Your task to perform on an android device: Open my contact list Image 0: 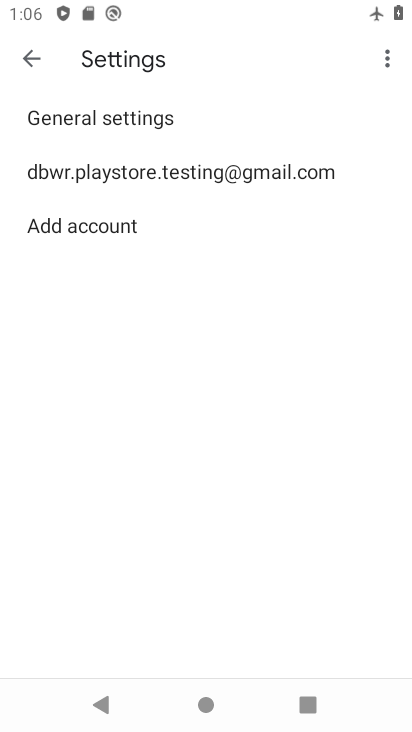
Step 0: press home button
Your task to perform on an android device: Open my contact list Image 1: 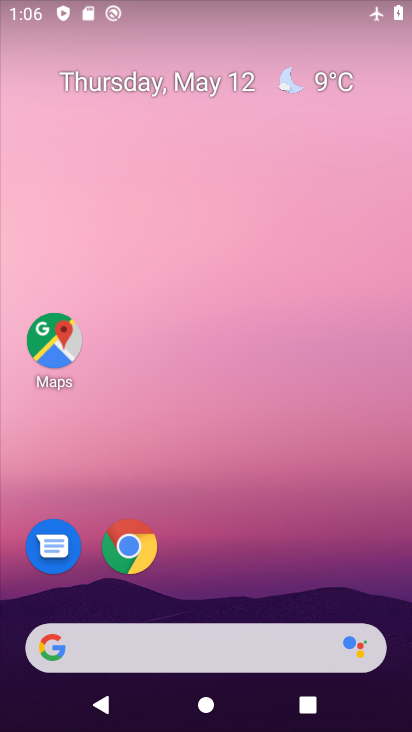
Step 1: drag from (194, 676) to (333, 338)
Your task to perform on an android device: Open my contact list Image 2: 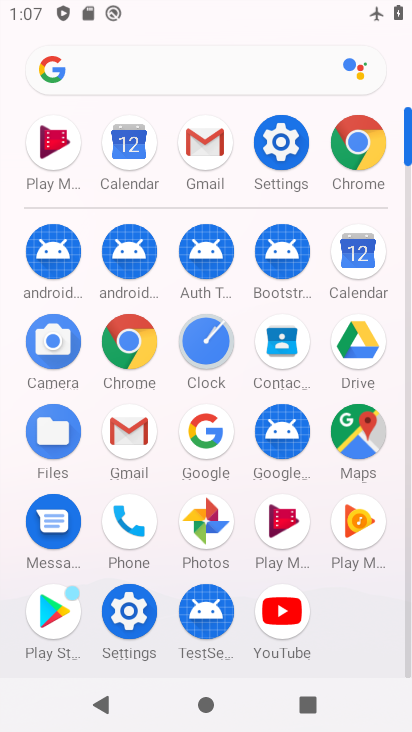
Step 2: click (133, 509)
Your task to perform on an android device: Open my contact list Image 3: 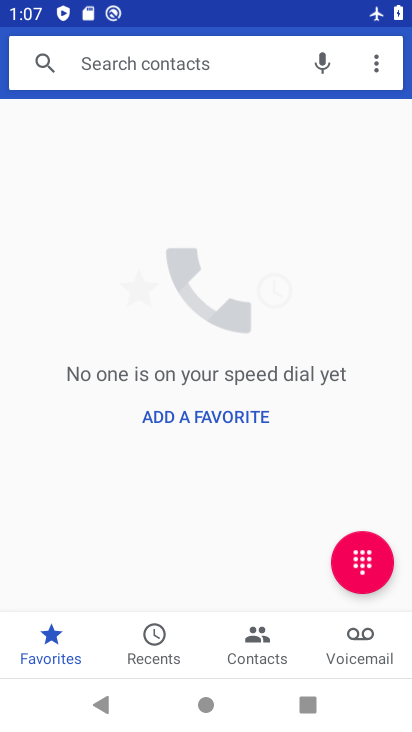
Step 3: click (251, 652)
Your task to perform on an android device: Open my contact list Image 4: 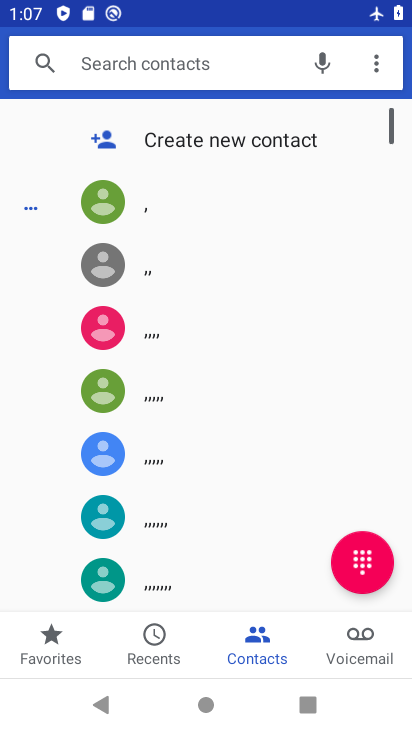
Step 4: click (214, 147)
Your task to perform on an android device: Open my contact list Image 5: 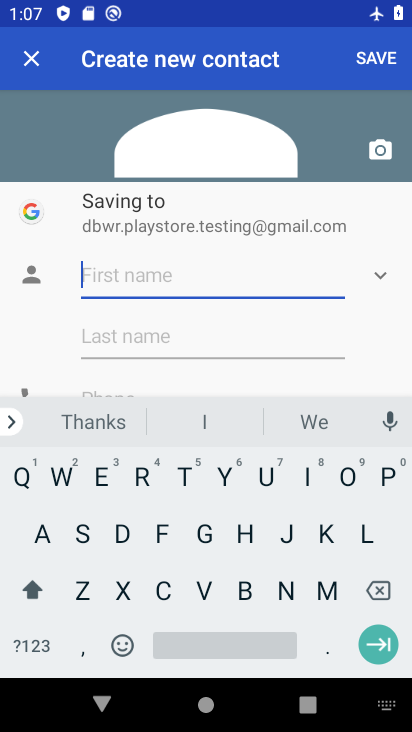
Step 5: click (131, 591)
Your task to perform on an android device: Open my contact list Image 6: 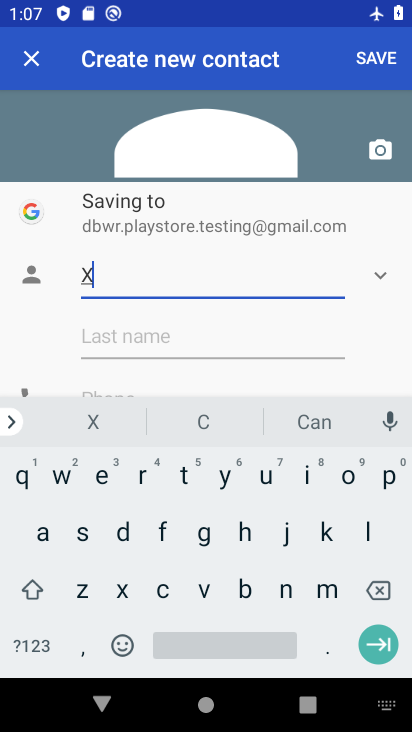
Step 6: click (88, 584)
Your task to perform on an android device: Open my contact list Image 7: 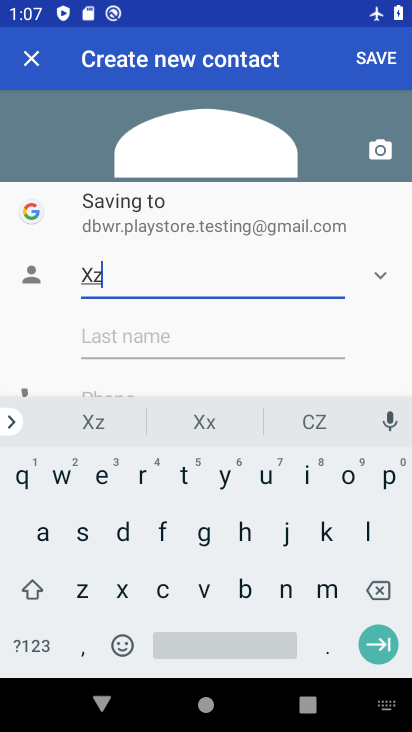
Step 7: click (46, 527)
Your task to perform on an android device: Open my contact list Image 8: 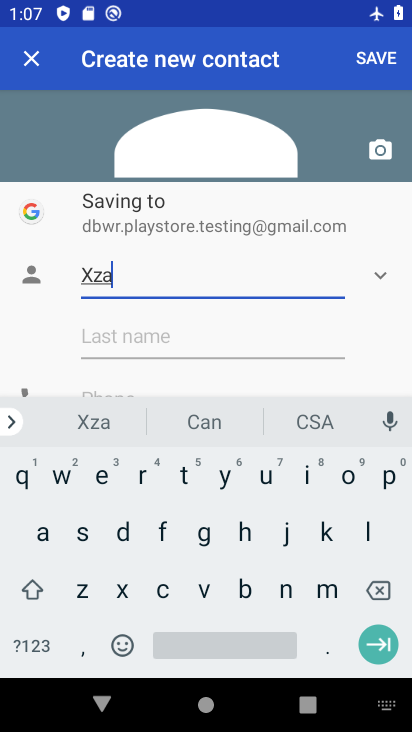
Step 8: drag from (187, 342) to (193, 254)
Your task to perform on an android device: Open my contact list Image 9: 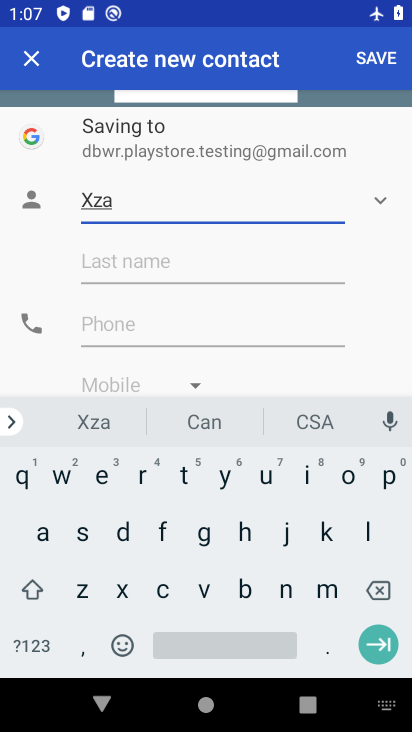
Step 9: click (127, 330)
Your task to perform on an android device: Open my contact list Image 10: 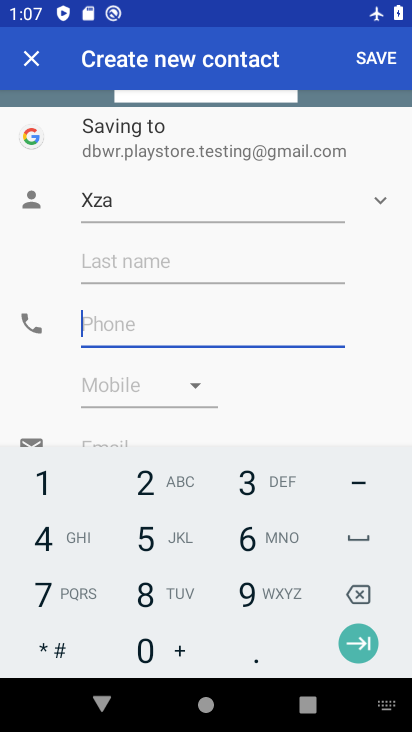
Step 10: click (163, 540)
Your task to perform on an android device: Open my contact list Image 11: 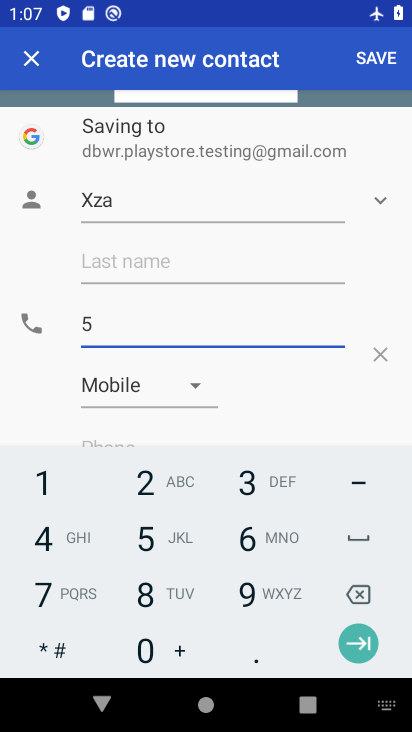
Step 11: click (254, 538)
Your task to perform on an android device: Open my contact list Image 12: 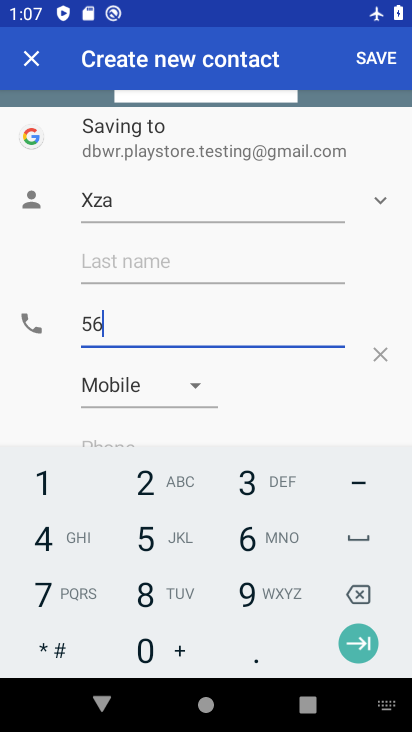
Step 12: click (151, 619)
Your task to perform on an android device: Open my contact list Image 13: 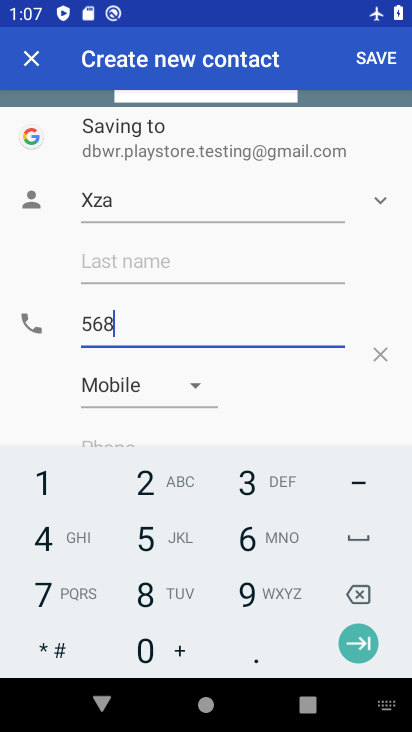
Step 13: click (50, 573)
Your task to perform on an android device: Open my contact list Image 14: 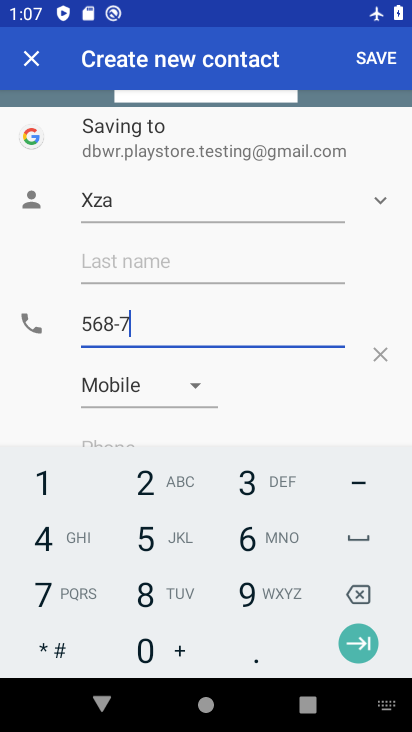
Step 14: click (52, 536)
Your task to perform on an android device: Open my contact list Image 15: 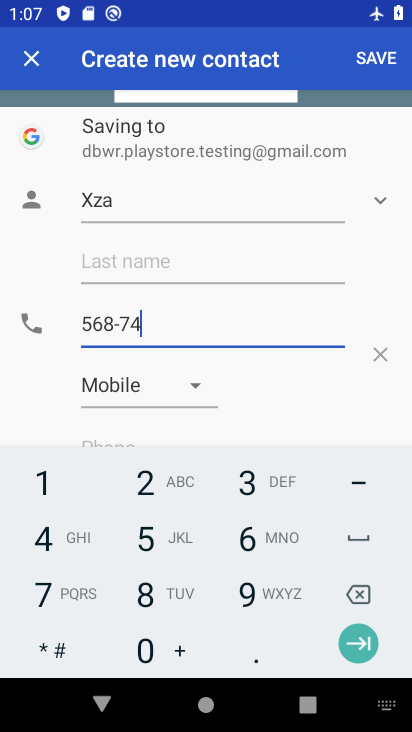
Step 15: click (61, 486)
Your task to perform on an android device: Open my contact list Image 16: 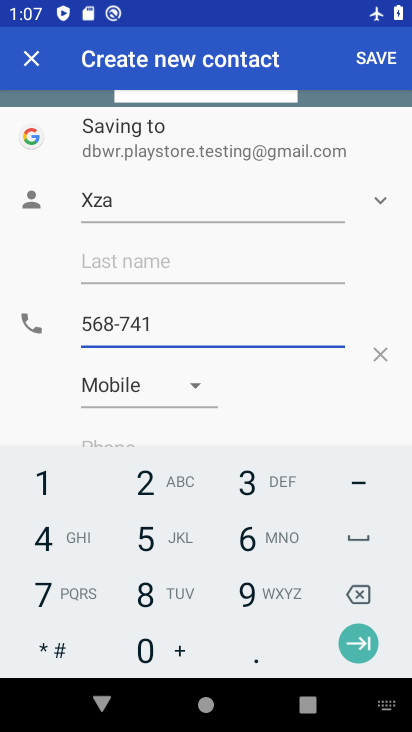
Step 16: click (146, 517)
Your task to perform on an android device: Open my contact list Image 17: 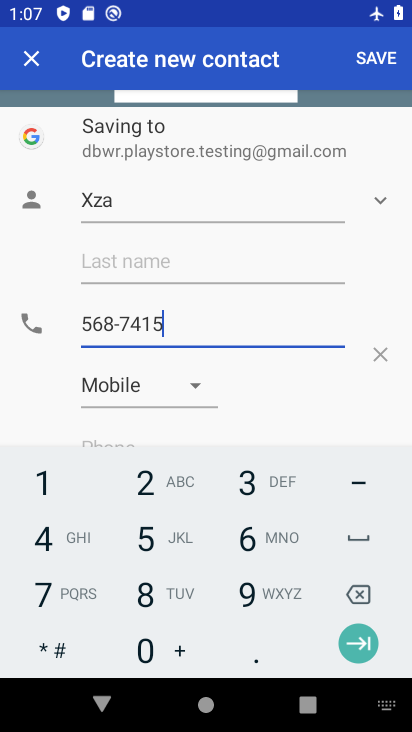
Step 17: click (235, 558)
Your task to perform on an android device: Open my contact list Image 18: 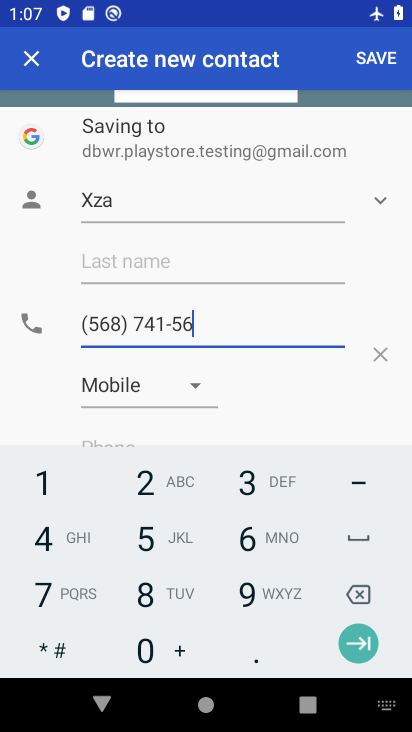
Step 18: click (261, 485)
Your task to perform on an android device: Open my contact list Image 19: 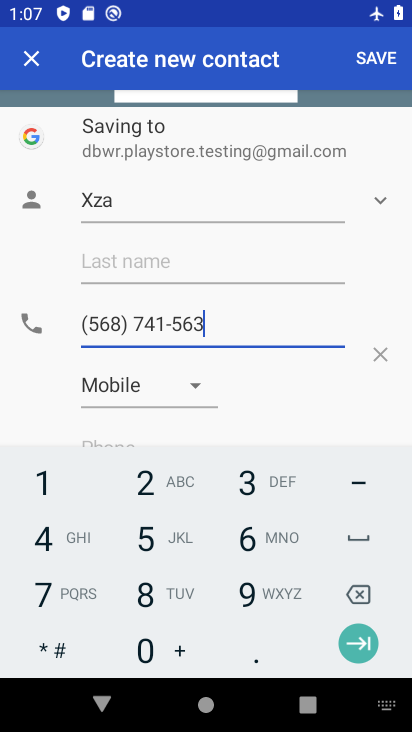
Step 19: click (221, 518)
Your task to perform on an android device: Open my contact list Image 20: 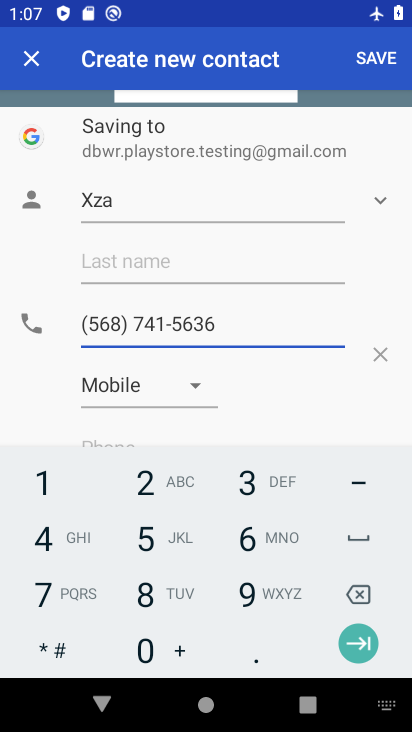
Step 20: click (372, 60)
Your task to perform on an android device: Open my contact list Image 21: 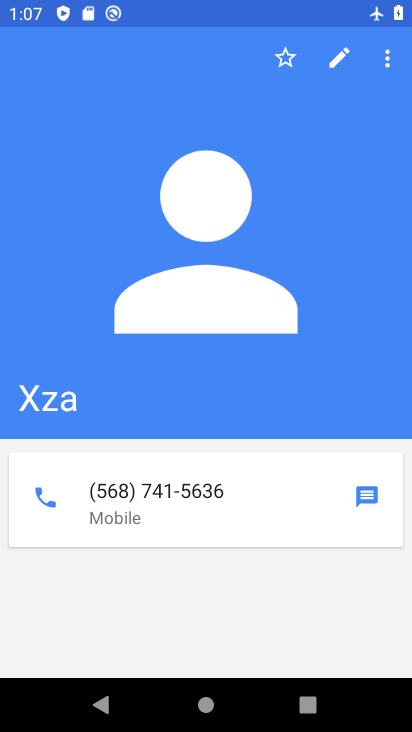
Step 21: task complete